Your task to perform on an android device: open a new tab in the chrome app Image 0: 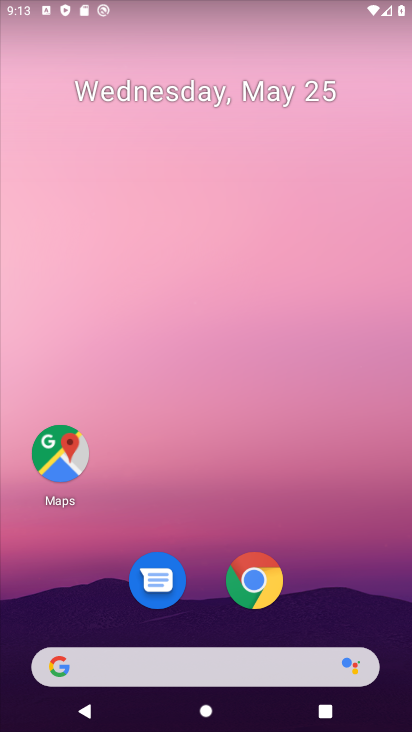
Step 0: press home button
Your task to perform on an android device: open a new tab in the chrome app Image 1: 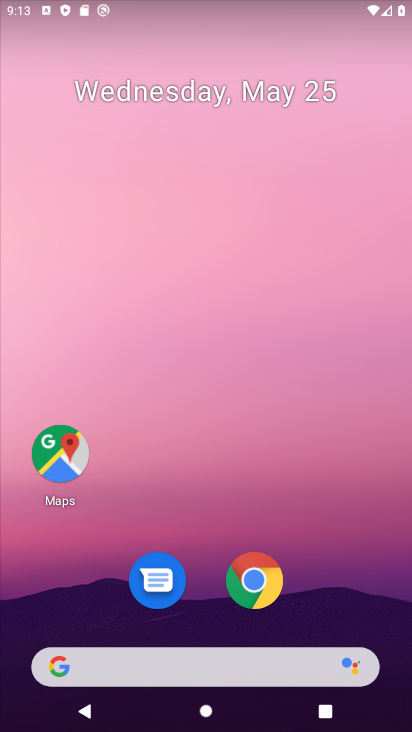
Step 1: click (264, 583)
Your task to perform on an android device: open a new tab in the chrome app Image 2: 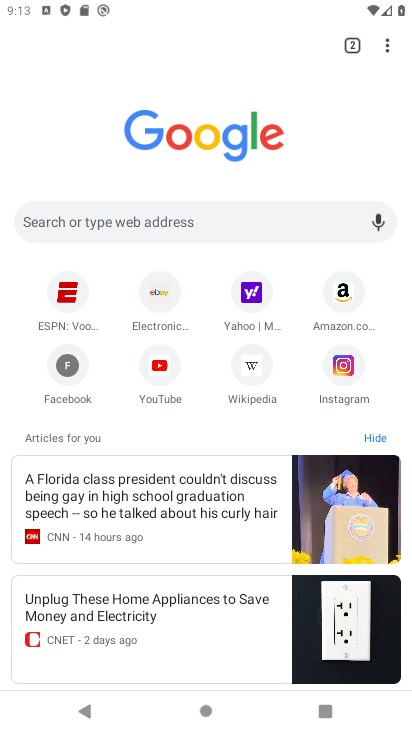
Step 2: click (342, 45)
Your task to perform on an android device: open a new tab in the chrome app Image 3: 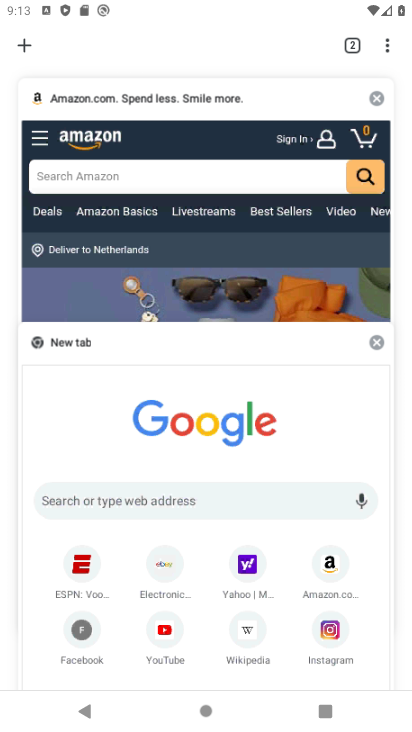
Step 3: click (382, 344)
Your task to perform on an android device: open a new tab in the chrome app Image 4: 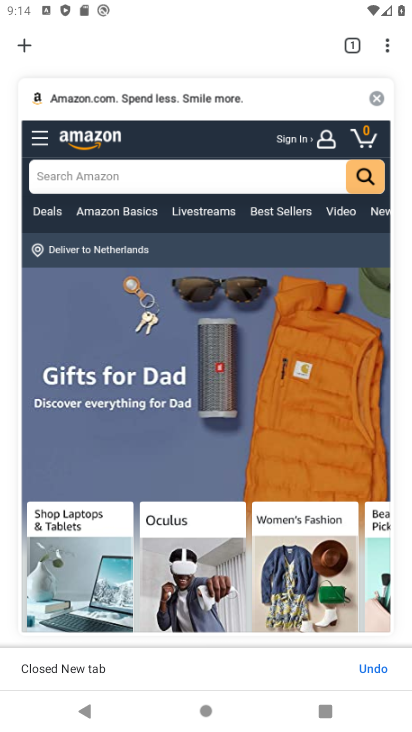
Step 4: click (376, 97)
Your task to perform on an android device: open a new tab in the chrome app Image 5: 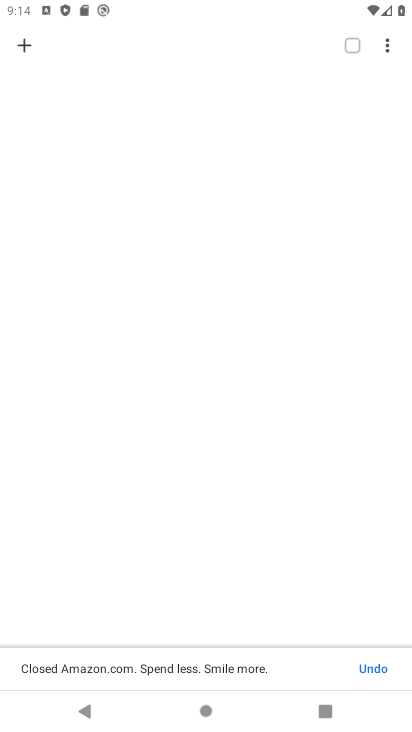
Step 5: click (26, 48)
Your task to perform on an android device: open a new tab in the chrome app Image 6: 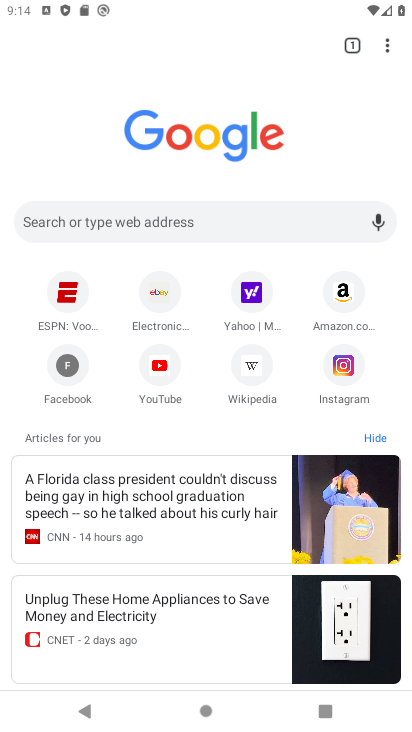
Step 6: task complete